Your task to perform on an android device: Do I have any events today? Image 0: 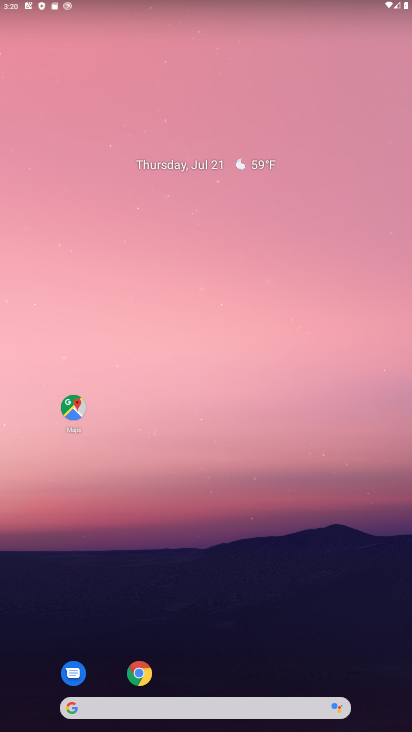
Step 0: drag from (273, 609) to (173, 67)
Your task to perform on an android device: Do I have any events today? Image 1: 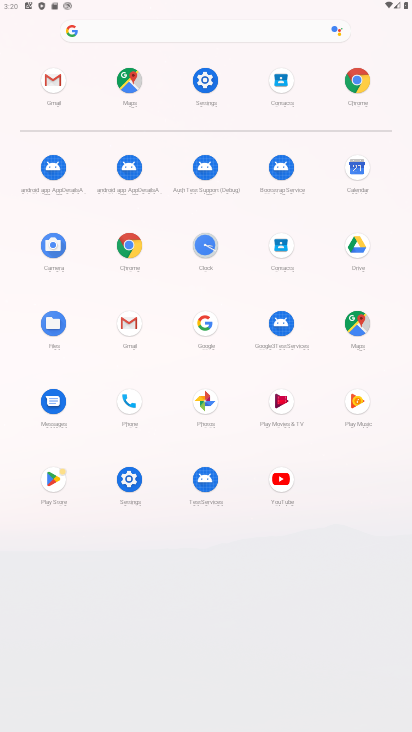
Step 1: click (363, 169)
Your task to perform on an android device: Do I have any events today? Image 2: 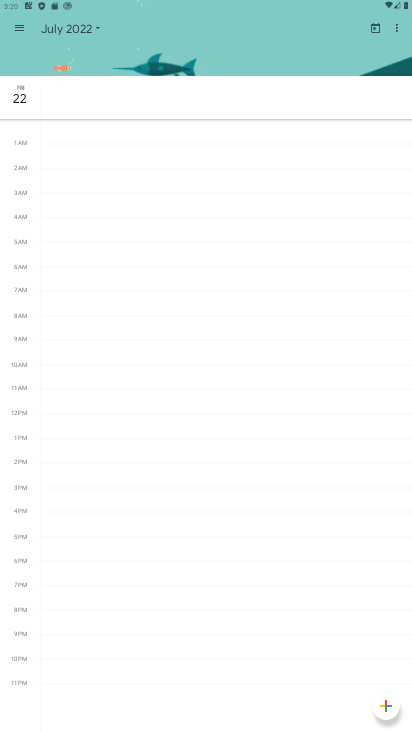
Step 2: click (25, 25)
Your task to perform on an android device: Do I have any events today? Image 3: 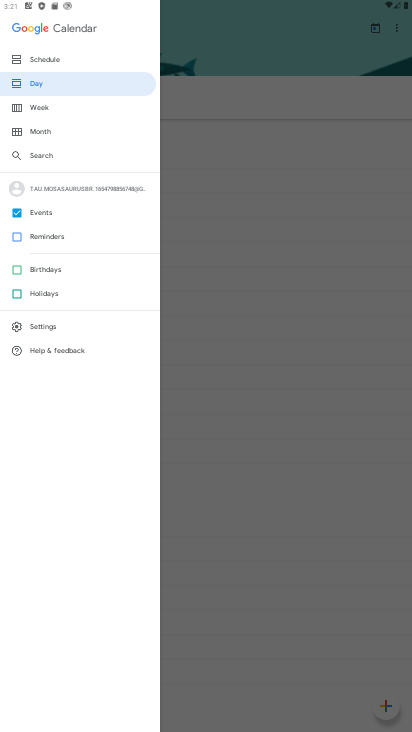
Step 3: click (40, 78)
Your task to perform on an android device: Do I have any events today? Image 4: 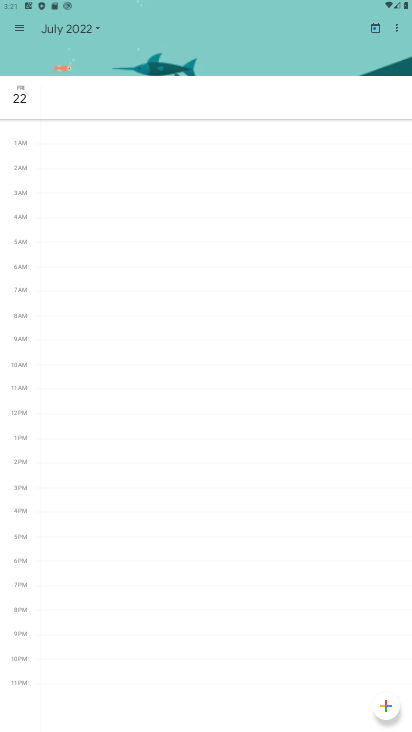
Step 4: task complete